Your task to perform on an android device: check the backup settings in the google photos Image 0: 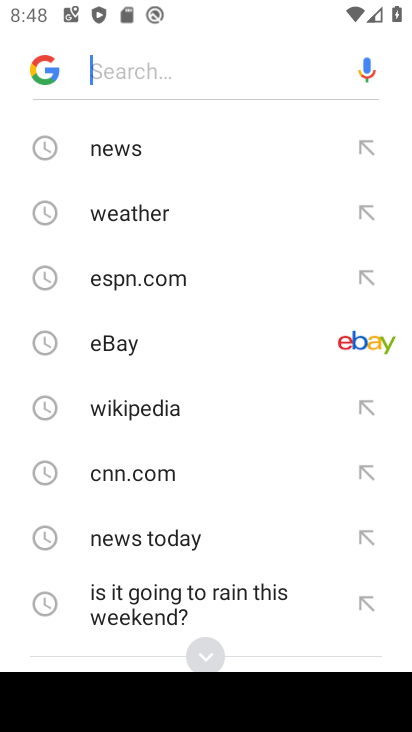
Step 0: press home button
Your task to perform on an android device: check the backup settings in the google photos Image 1: 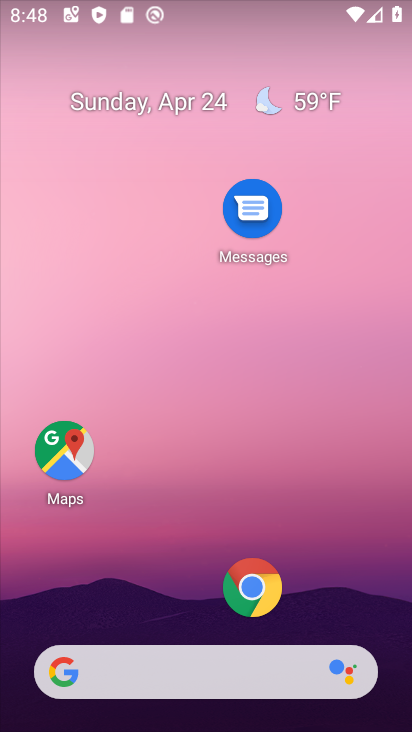
Step 1: drag from (140, 515) to (222, 11)
Your task to perform on an android device: check the backup settings in the google photos Image 2: 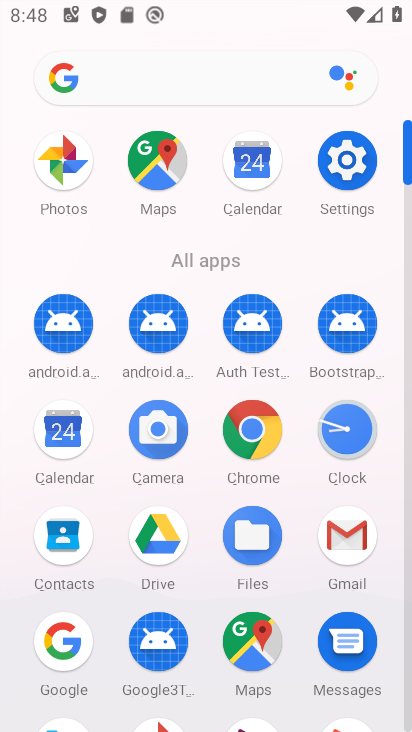
Step 2: drag from (203, 588) to (222, 204)
Your task to perform on an android device: check the backup settings in the google photos Image 3: 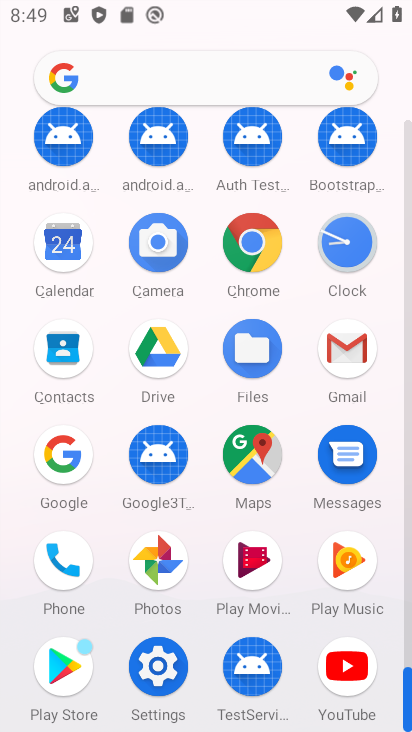
Step 3: click (159, 566)
Your task to perform on an android device: check the backup settings in the google photos Image 4: 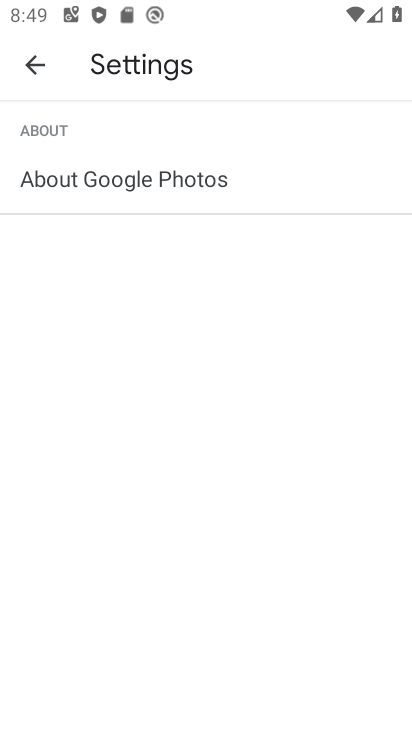
Step 4: click (34, 57)
Your task to perform on an android device: check the backup settings in the google photos Image 5: 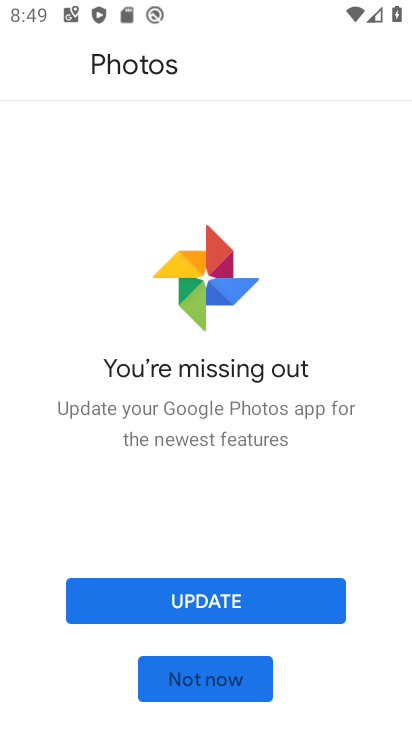
Step 5: click (202, 680)
Your task to perform on an android device: check the backup settings in the google photos Image 6: 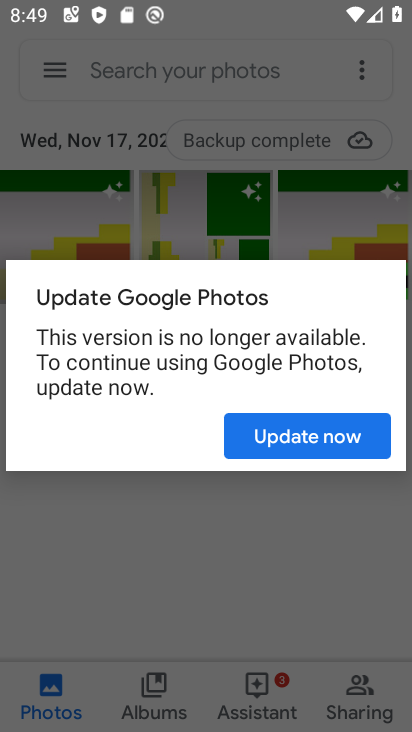
Step 6: click (265, 441)
Your task to perform on an android device: check the backup settings in the google photos Image 7: 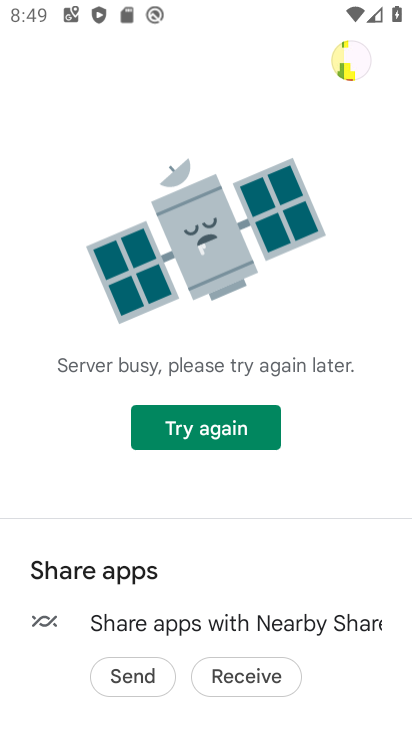
Step 7: press back button
Your task to perform on an android device: check the backup settings in the google photos Image 8: 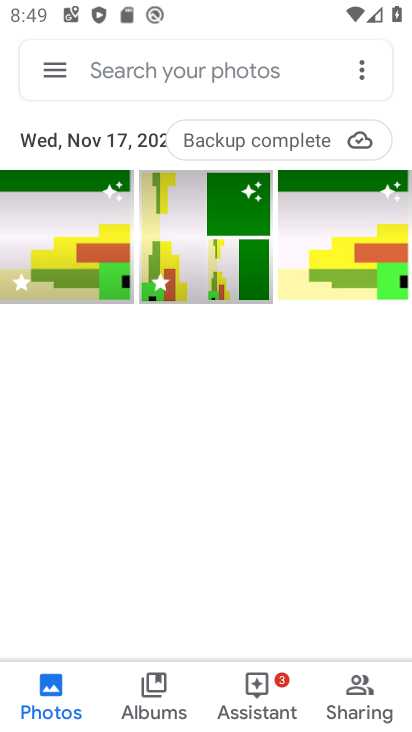
Step 8: click (55, 72)
Your task to perform on an android device: check the backup settings in the google photos Image 9: 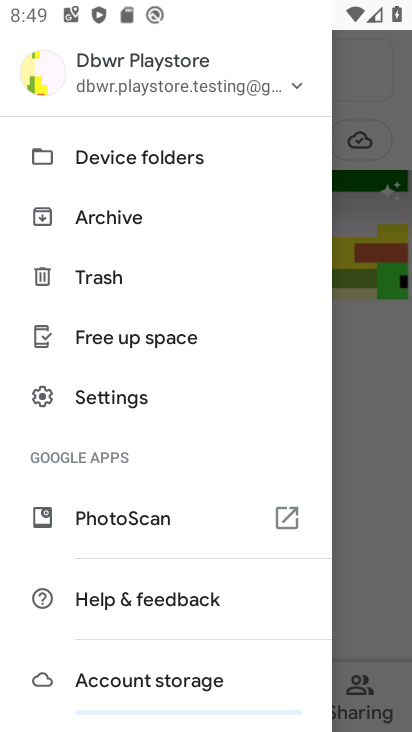
Step 9: click (120, 403)
Your task to perform on an android device: check the backup settings in the google photos Image 10: 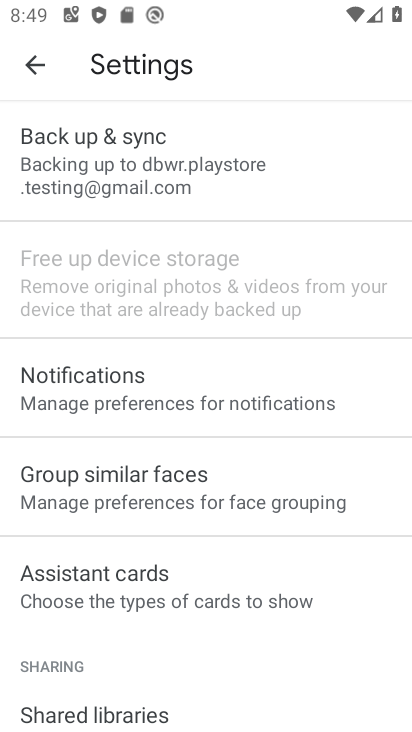
Step 10: click (138, 155)
Your task to perform on an android device: check the backup settings in the google photos Image 11: 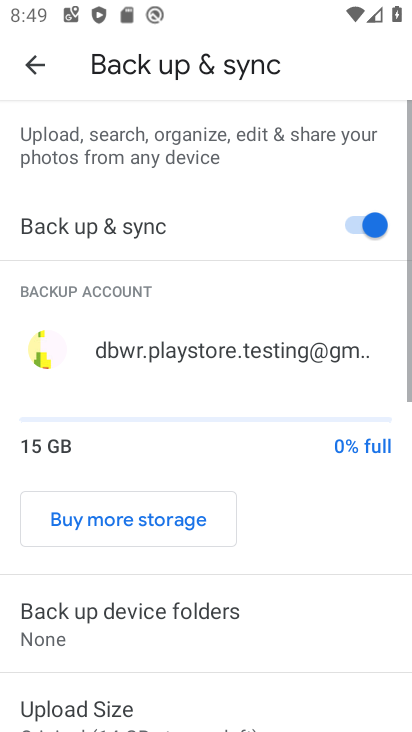
Step 11: task complete